Your task to perform on an android device: all mails in gmail Image 0: 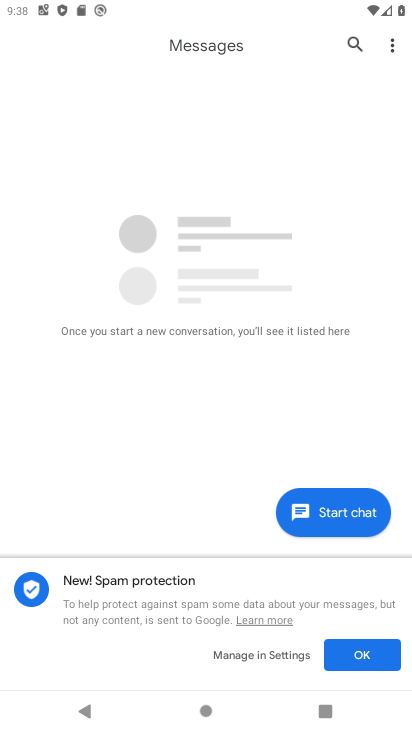
Step 0: press home button
Your task to perform on an android device: all mails in gmail Image 1: 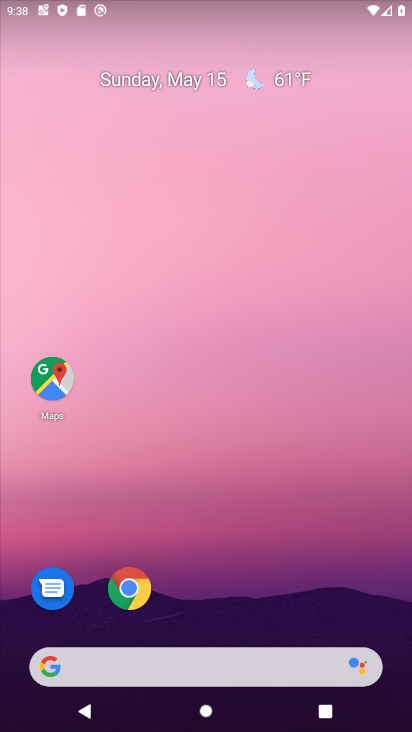
Step 1: drag from (236, 589) to (254, 283)
Your task to perform on an android device: all mails in gmail Image 2: 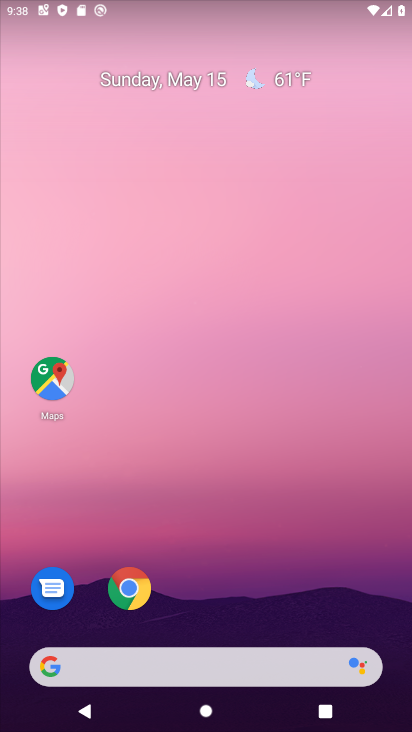
Step 2: drag from (204, 621) to (200, 131)
Your task to perform on an android device: all mails in gmail Image 3: 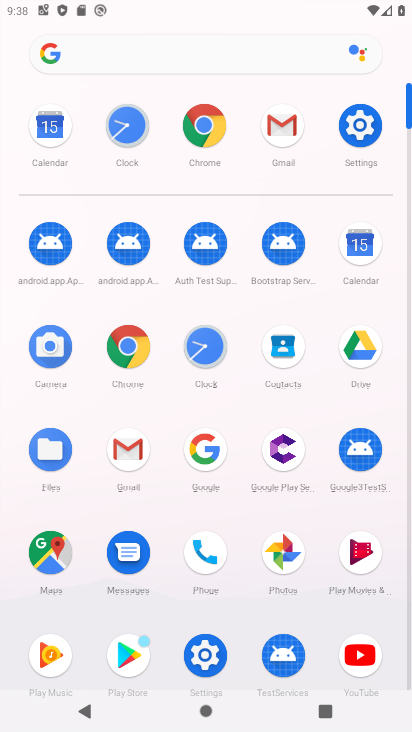
Step 3: click (122, 456)
Your task to perform on an android device: all mails in gmail Image 4: 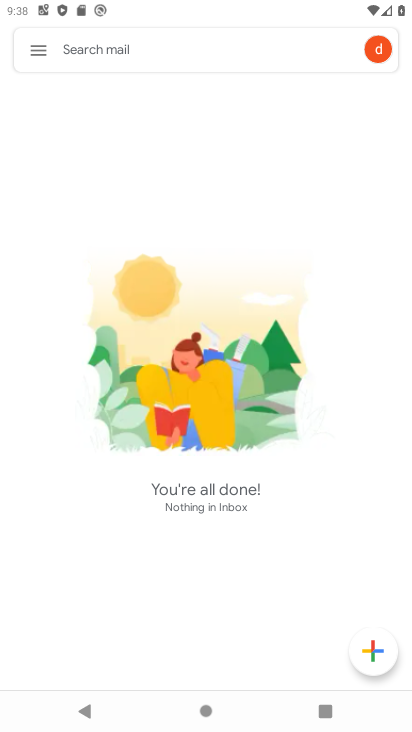
Step 4: click (28, 47)
Your task to perform on an android device: all mails in gmail Image 5: 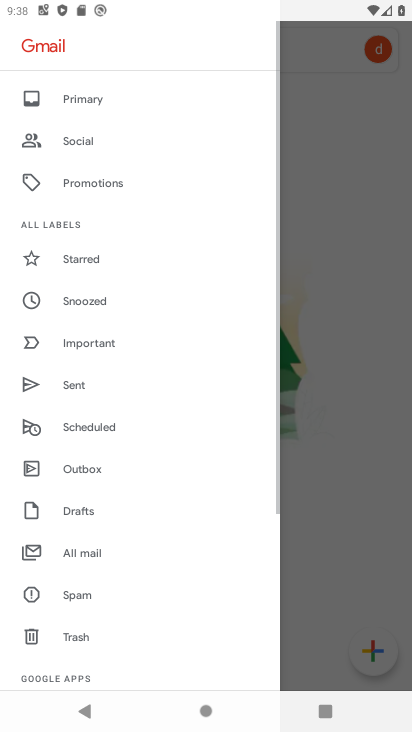
Step 5: click (90, 546)
Your task to perform on an android device: all mails in gmail Image 6: 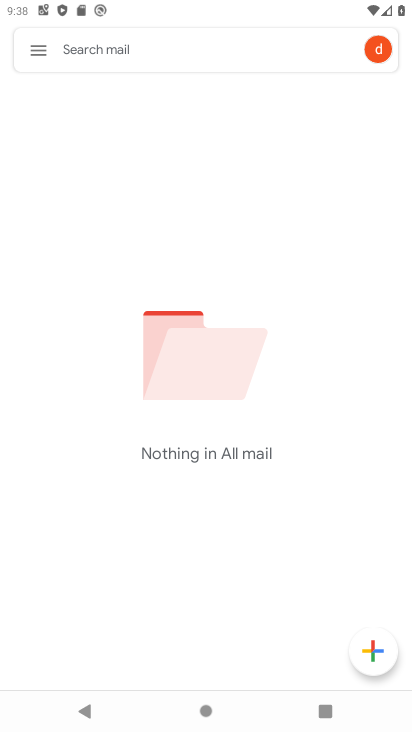
Step 6: task complete